Your task to perform on an android device: Open my contact list Image 0: 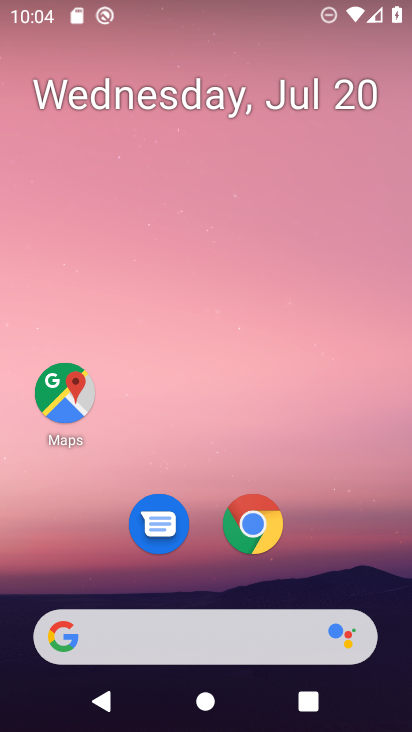
Step 0: press home button
Your task to perform on an android device: Open my contact list Image 1: 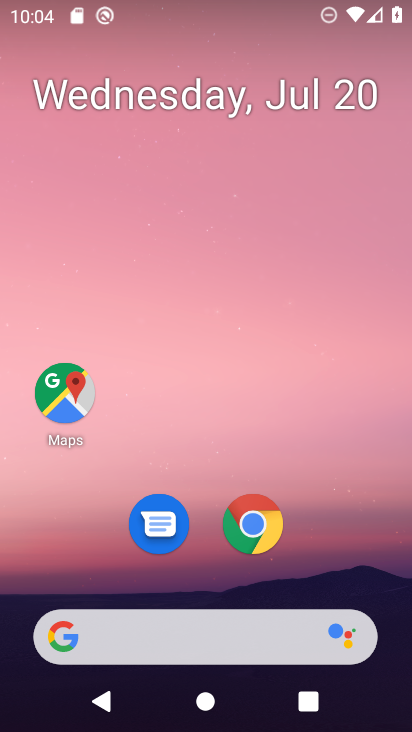
Step 1: drag from (193, 621) to (308, 125)
Your task to perform on an android device: Open my contact list Image 2: 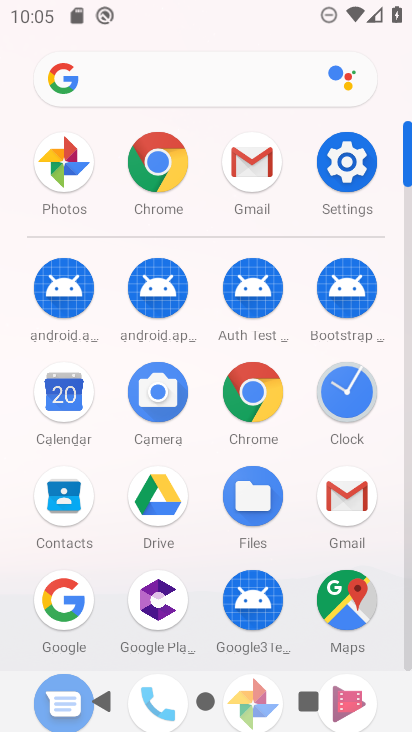
Step 2: click (76, 494)
Your task to perform on an android device: Open my contact list Image 3: 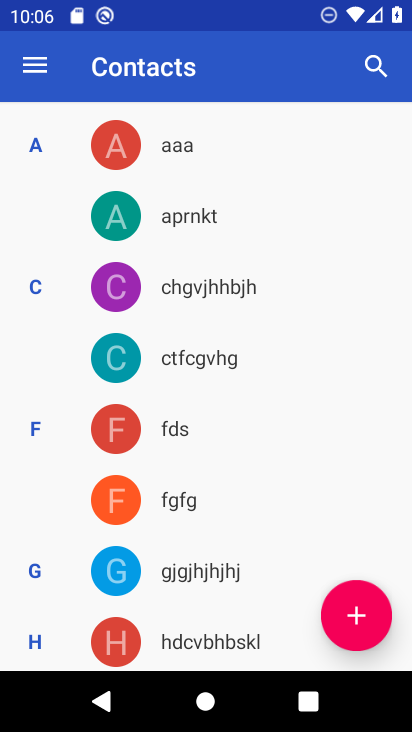
Step 3: task complete